Your task to perform on an android device: add a contact Image 0: 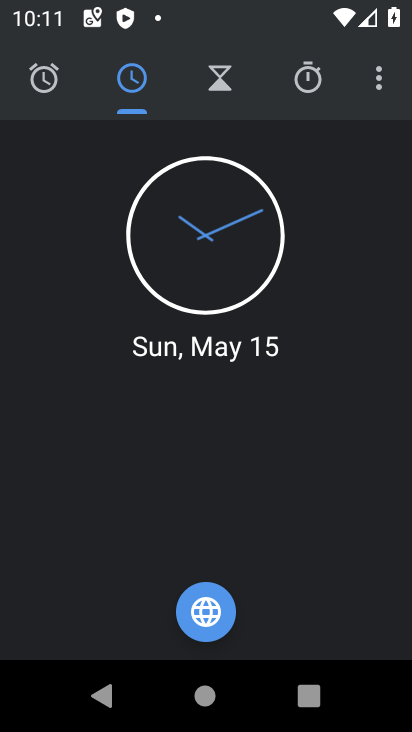
Step 0: press home button
Your task to perform on an android device: add a contact Image 1: 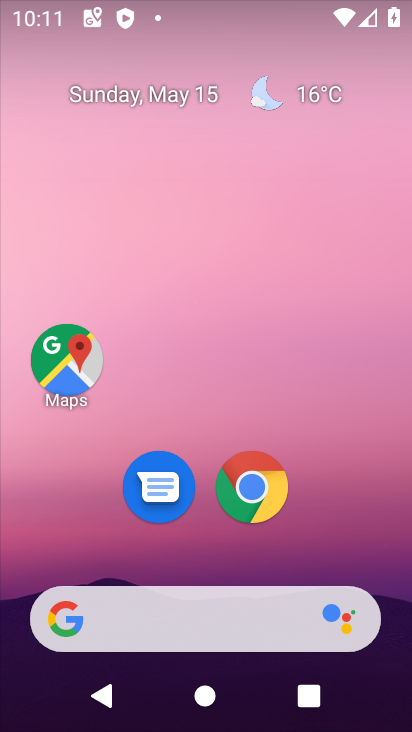
Step 1: drag from (396, 621) to (345, 48)
Your task to perform on an android device: add a contact Image 2: 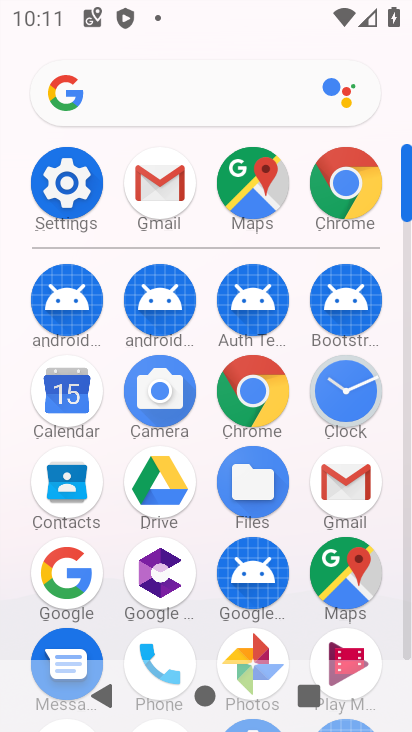
Step 2: click (66, 477)
Your task to perform on an android device: add a contact Image 3: 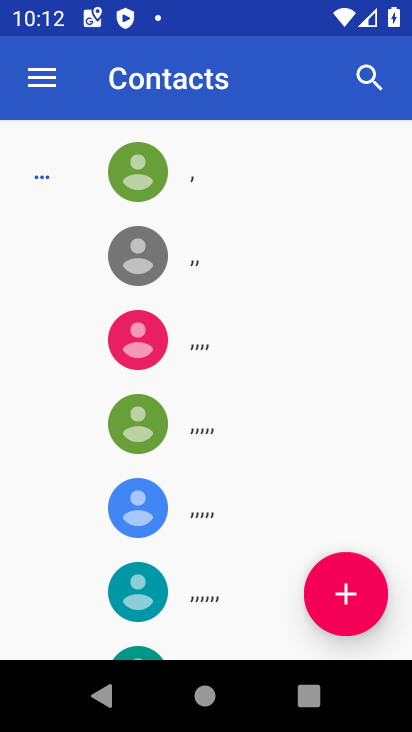
Step 3: click (348, 597)
Your task to perform on an android device: add a contact Image 4: 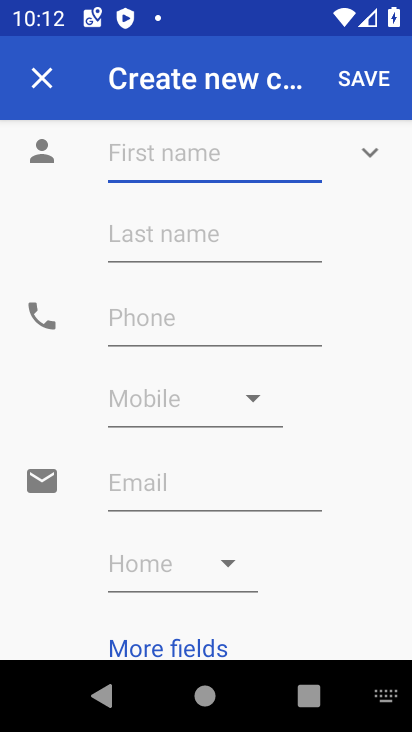
Step 4: type "jhjhgdgd"
Your task to perform on an android device: add a contact Image 5: 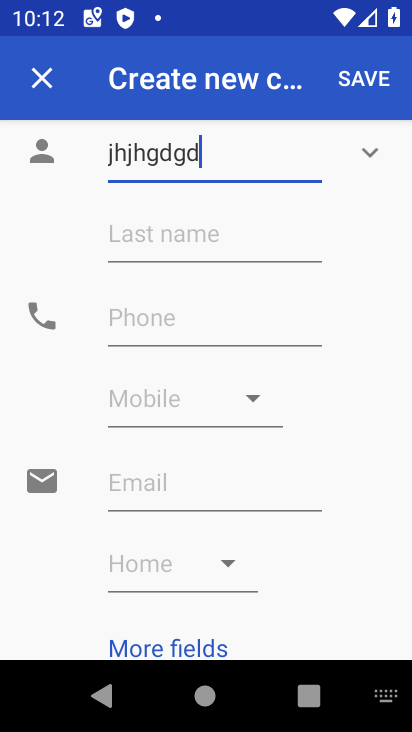
Step 5: click (139, 318)
Your task to perform on an android device: add a contact Image 6: 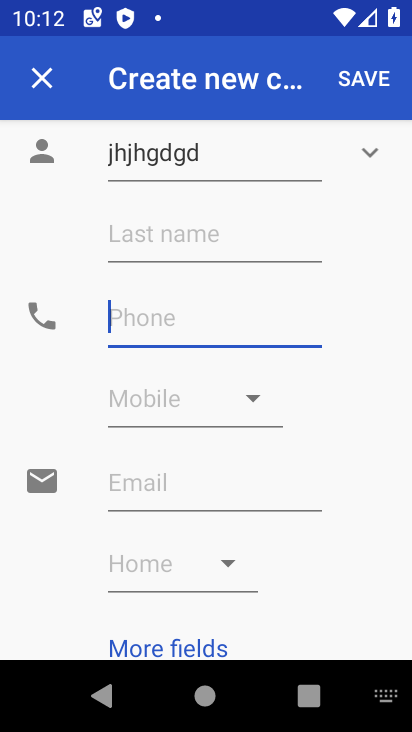
Step 6: type "i967877"
Your task to perform on an android device: add a contact Image 7: 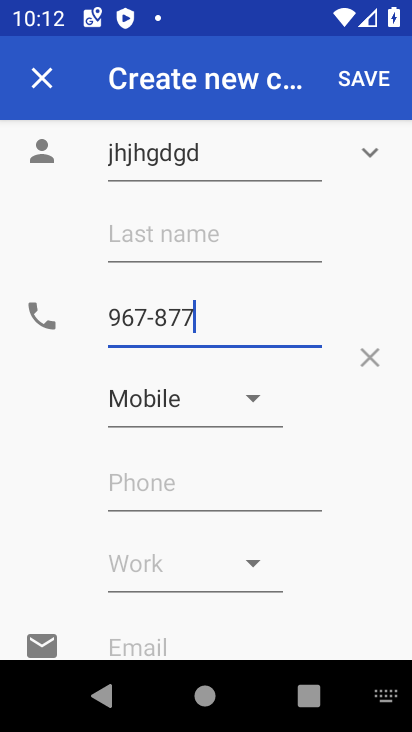
Step 7: click (265, 406)
Your task to perform on an android device: add a contact Image 8: 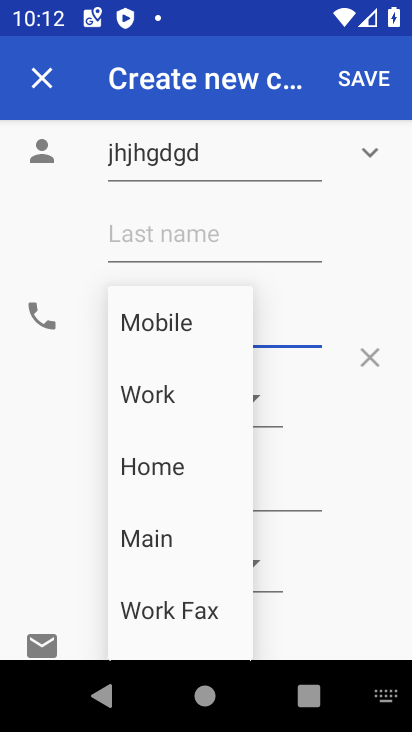
Step 8: click (154, 384)
Your task to perform on an android device: add a contact Image 9: 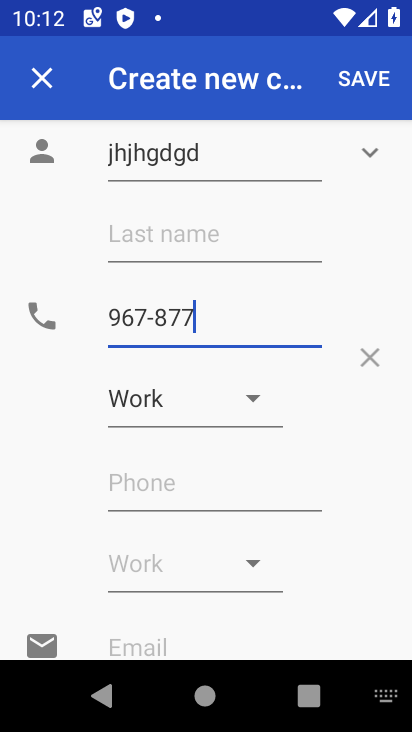
Step 9: click (359, 72)
Your task to perform on an android device: add a contact Image 10: 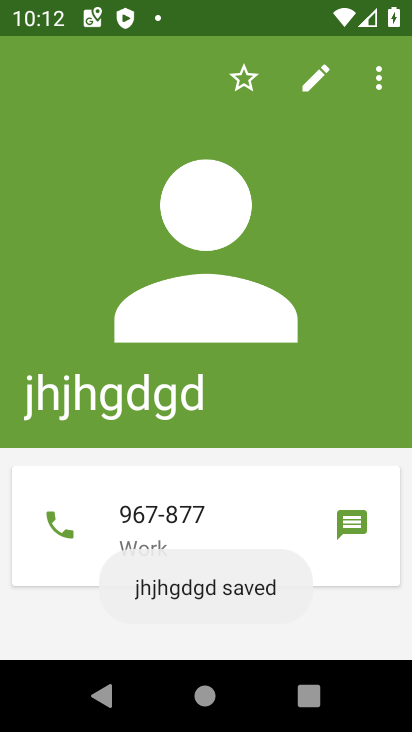
Step 10: task complete